Your task to perform on an android device: open app "eBay: The shopping marketplace" (install if not already installed), go to login, and select forgot password Image 0: 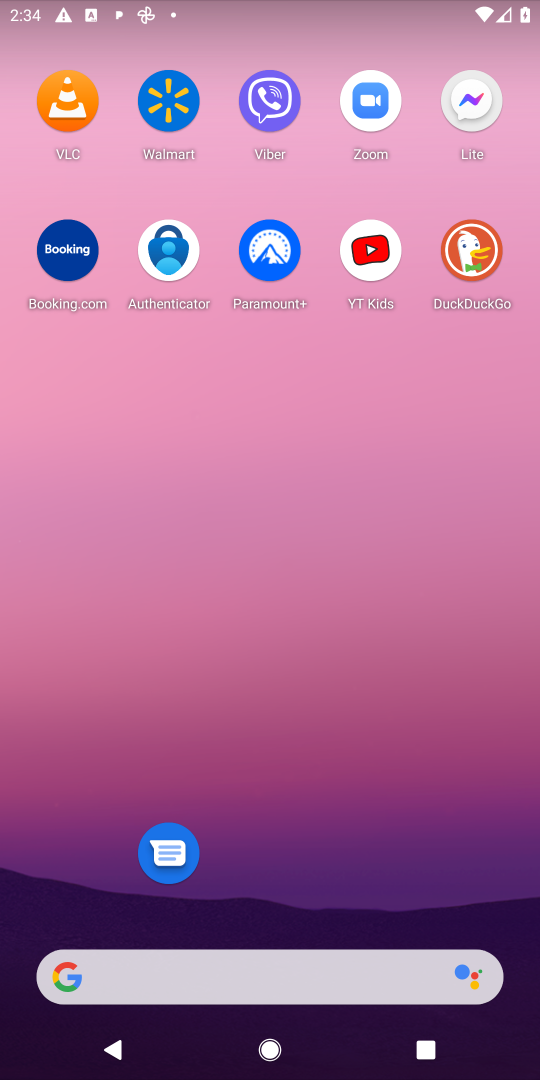
Step 0: drag from (352, 913) to (332, 251)
Your task to perform on an android device: open app "eBay: The shopping marketplace" (install if not already installed), go to login, and select forgot password Image 1: 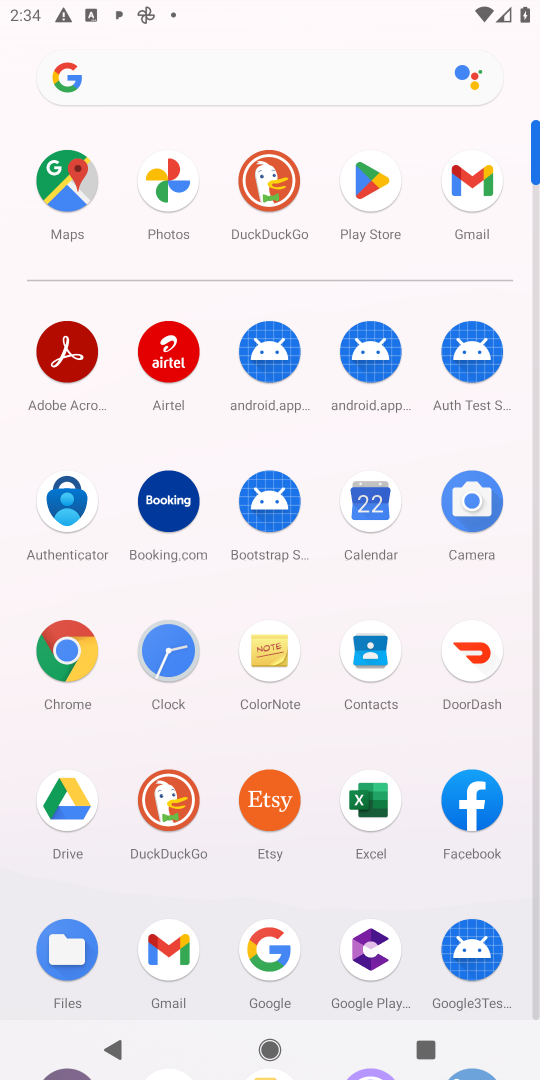
Step 1: click (381, 176)
Your task to perform on an android device: open app "eBay: The shopping marketplace" (install if not already installed), go to login, and select forgot password Image 2: 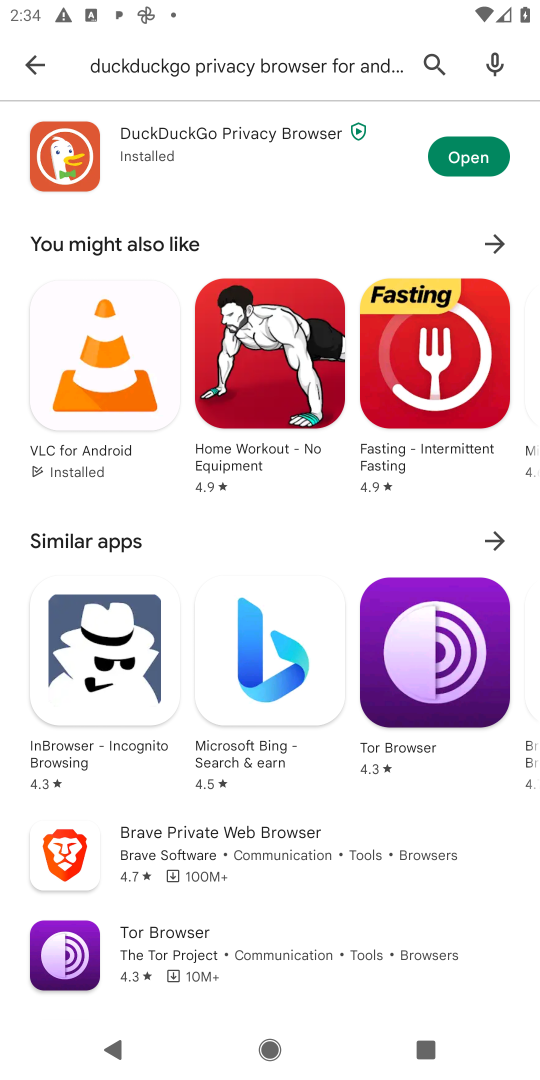
Step 2: click (31, 54)
Your task to perform on an android device: open app "eBay: The shopping marketplace" (install if not already installed), go to login, and select forgot password Image 3: 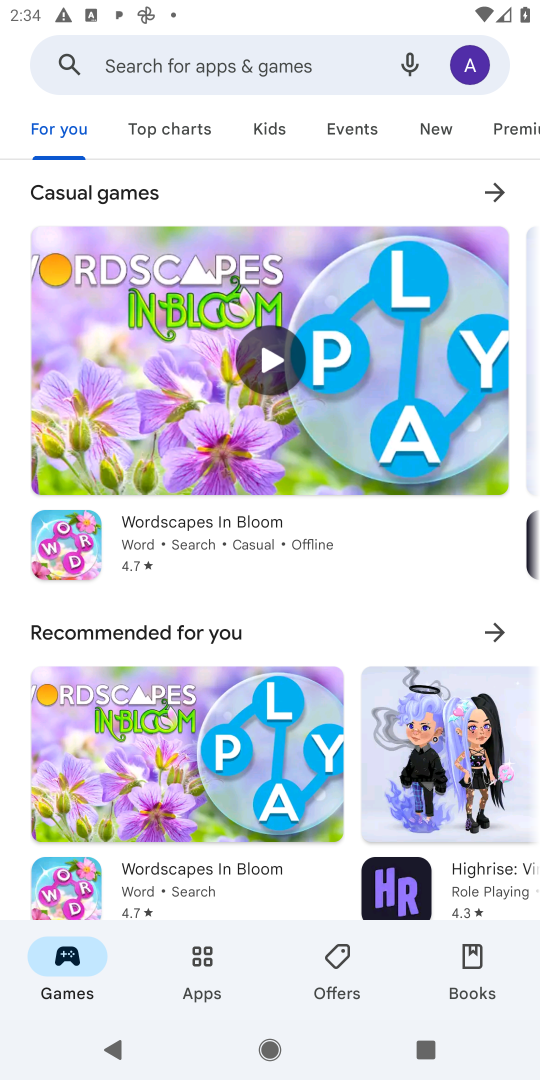
Step 3: click (186, 61)
Your task to perform on an android device: open app "eBay: The shopping marketplace" (install if not already installed), go to login, and select forgot password Image 4: 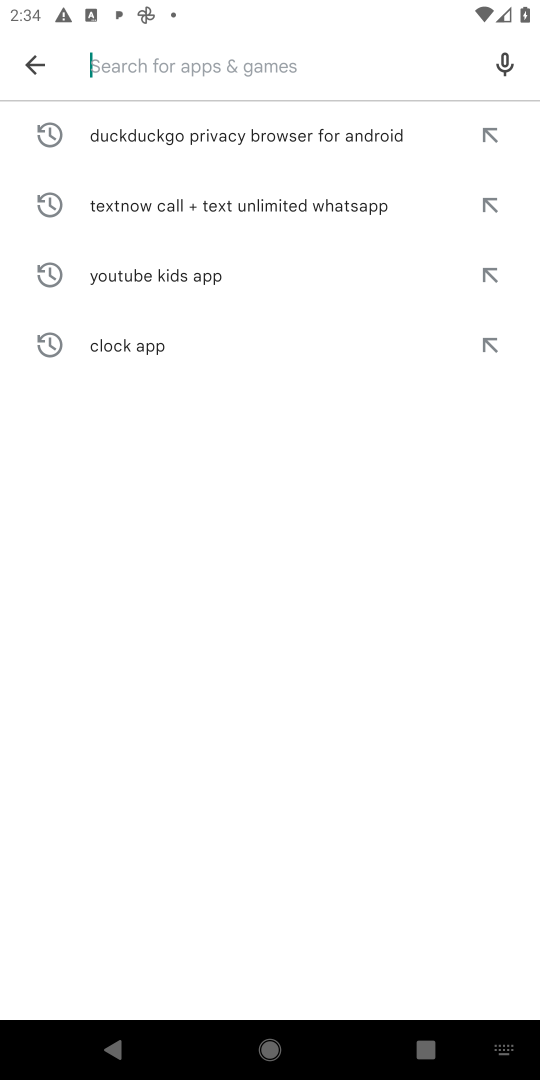
Step 4: type "ebay "
Your task to perform on an android device: open app "eBay: The shopping marketplace" (install if not already installed), go to login, and select forgot password Image 5: 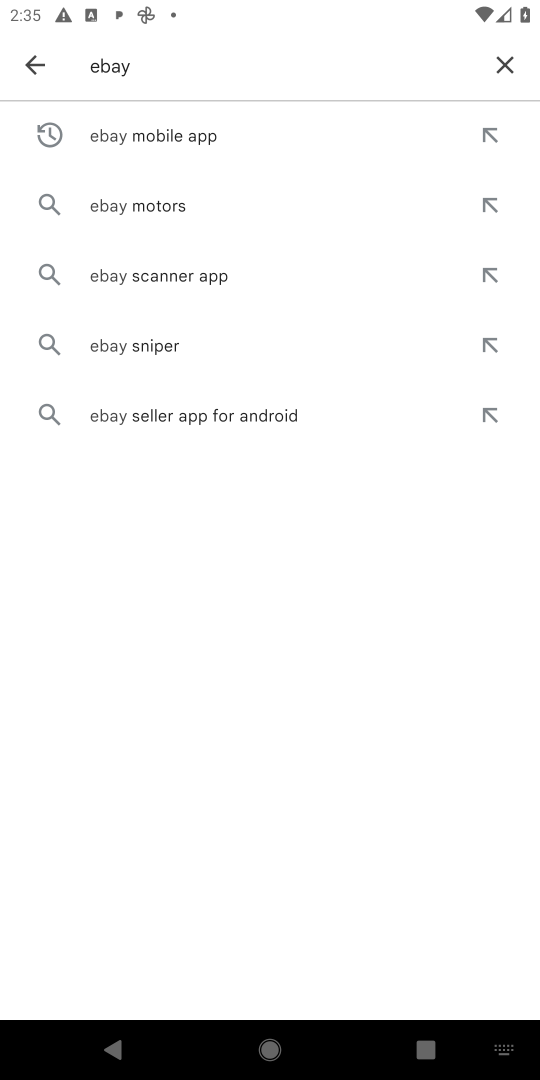
Step 5: click (177, 137)
Your task to perform on an android device: open app "eBay: The shopping marketplace" (install if not already installed), go to login, and select forgot password Image 6: 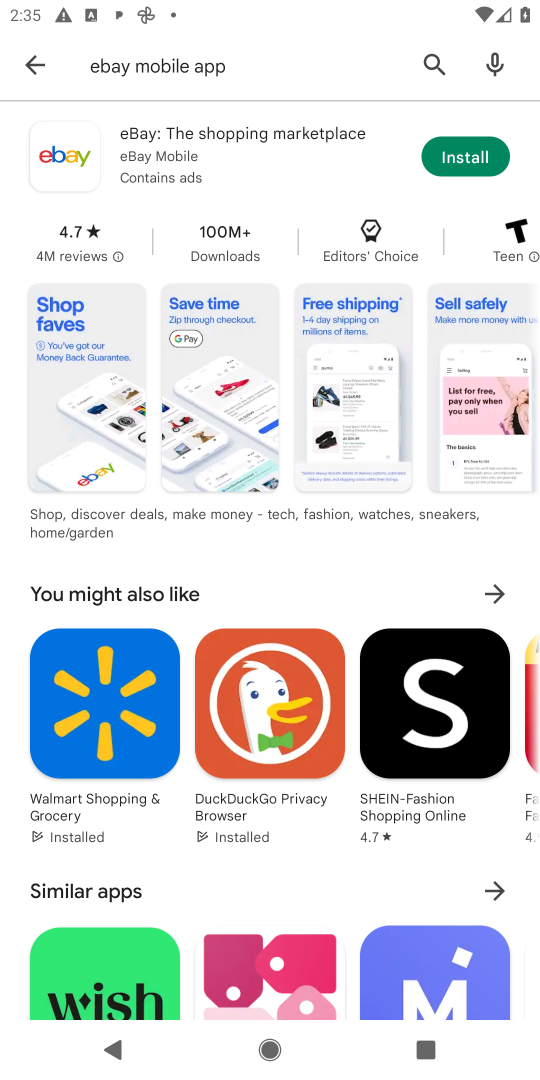
Step 6: click (471, 136)
Your task to perform on an android device: open app "eBay: The shopping marketplace" (install if not already installed), go to login, and select forgot password Image 7: 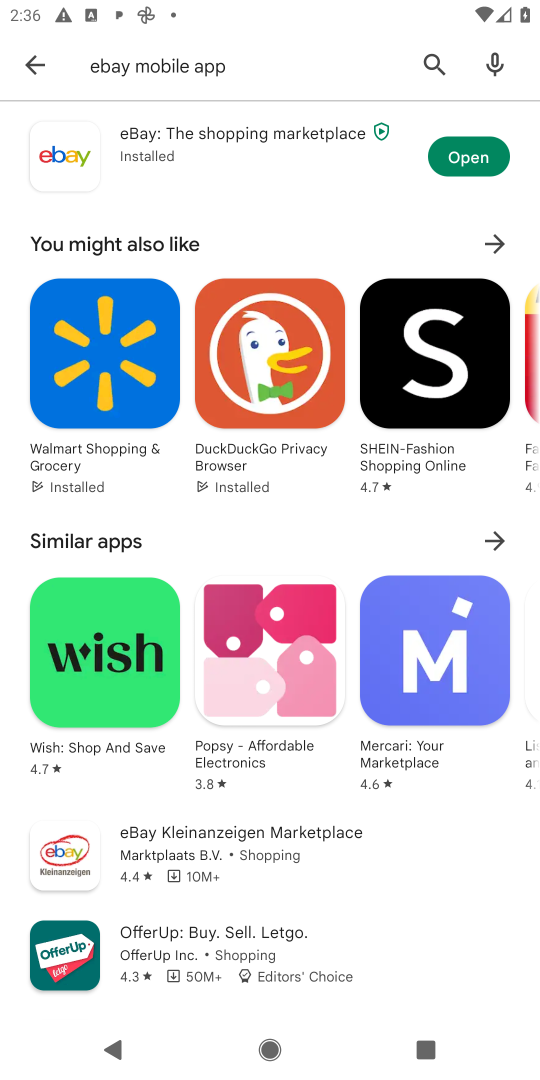
Step 7: task complete